Your task to perform on an android device: make emails show in primary in the gmail app Image 0: 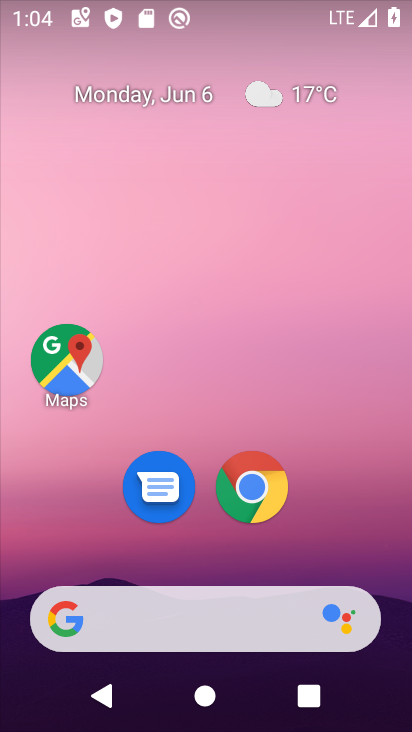
Step 0: drag from (220, 571) to (265, 63)
Your task to perform on an android device: make emails show in primary in the gmail app Image 1: 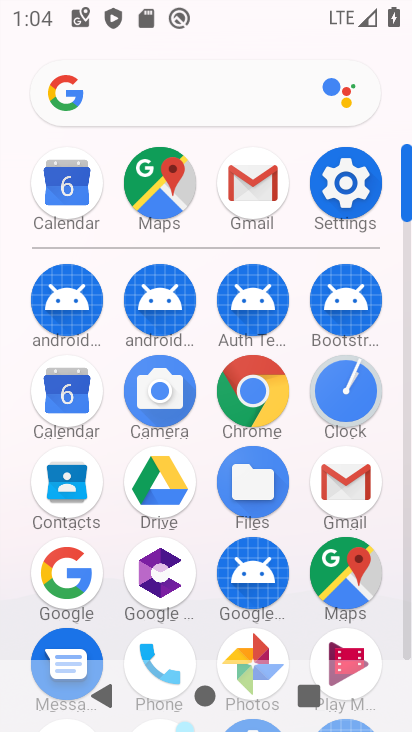
Step 1: click (251, 193)
Your task to perform on an android device: make emails show in primary in the gmail app Image 2: 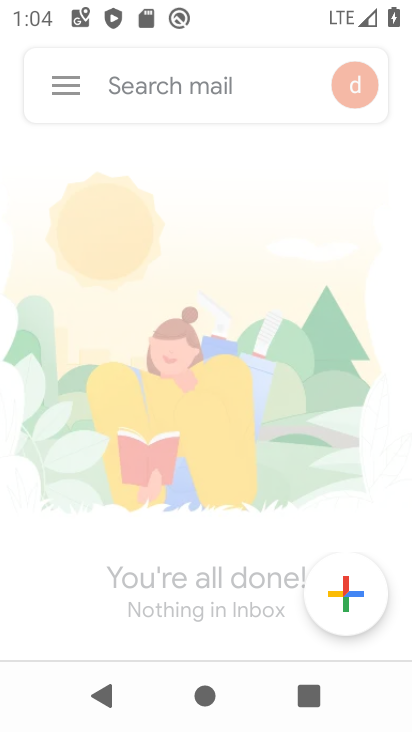
Step 2: click (71, 87)
Your task to perform on an android device: make emails show in primary in the gmail app Image 3: 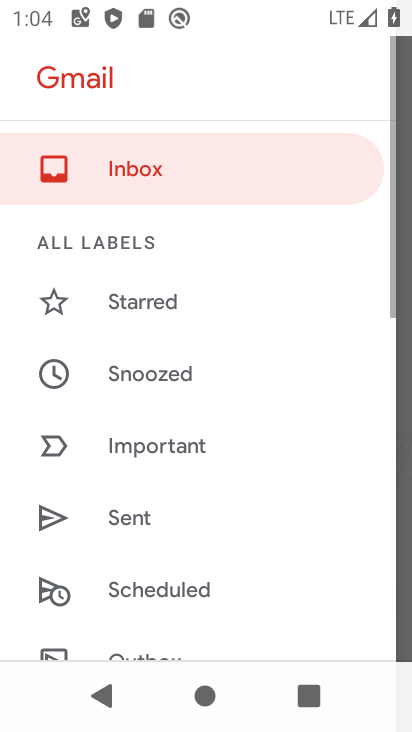
Step 3: drag from (158, 591) to (211, 139)
Your task to perform on an android device: make emails show in primary in the gmail app Image 4: 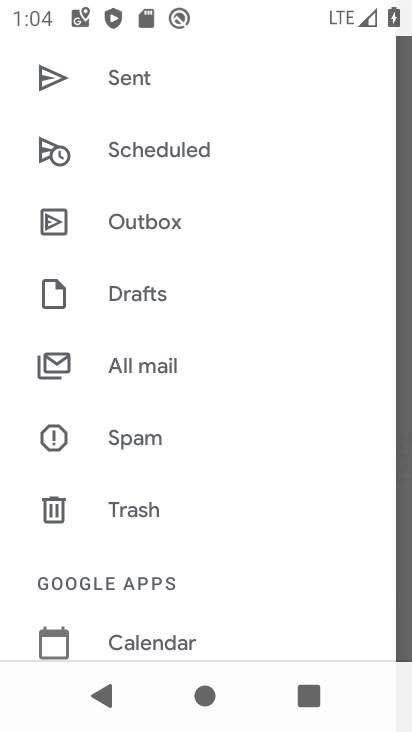
Step 4: drag from (179, 611) to (248, 121)
Your task to perform on an android device: make emails show in primary in the gmail app Image 5: 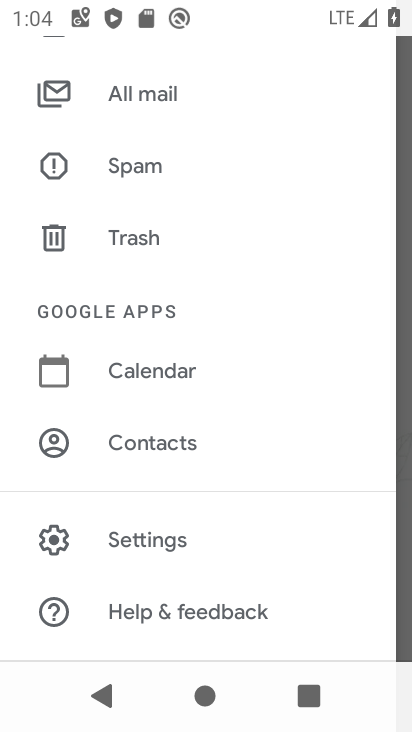
Step 5: click (148, 552)
Your task to perform on an android device: make emails show in primary in the gmail app Image 6: 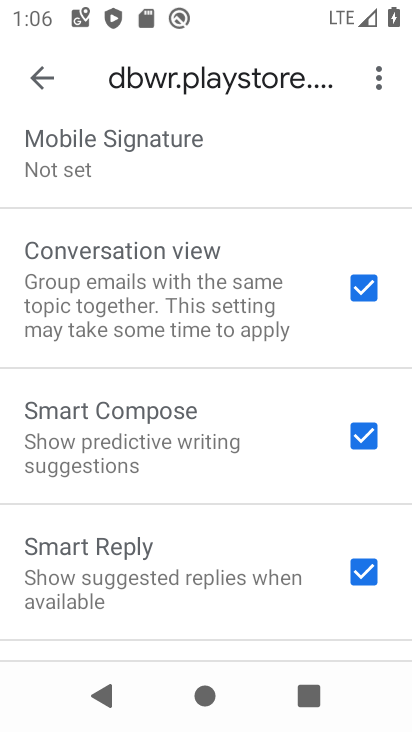
Step 6: drag from (184, 254) to (208, 670)
Your task to perform on an android device: make emails show in primary in the gmail app Image 7: 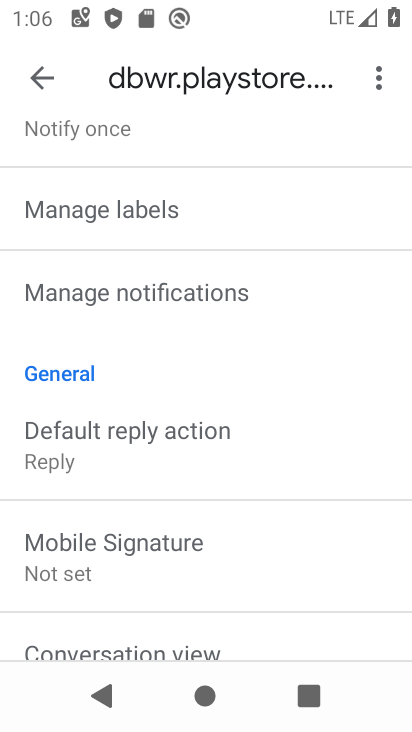
Step 7: drag from (148, 291) to (179, 655)
Your task to perform on an android device: make emails show in primary in the gmail app Image 8: 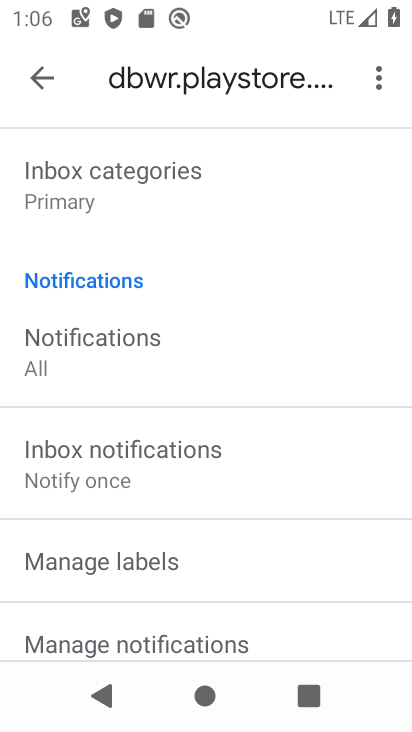
Step 8: drag from (180, 272) to (180, 535)
Your task to perform on an android device: make emails show in primary in the gmail app Image 9: 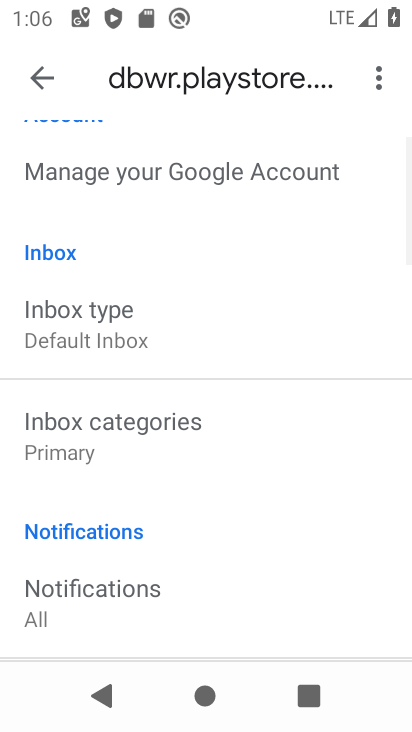
Step 9: click (123, 467)
Your task to perform on an android device: make emails show in primary in the gmail app Image 10: 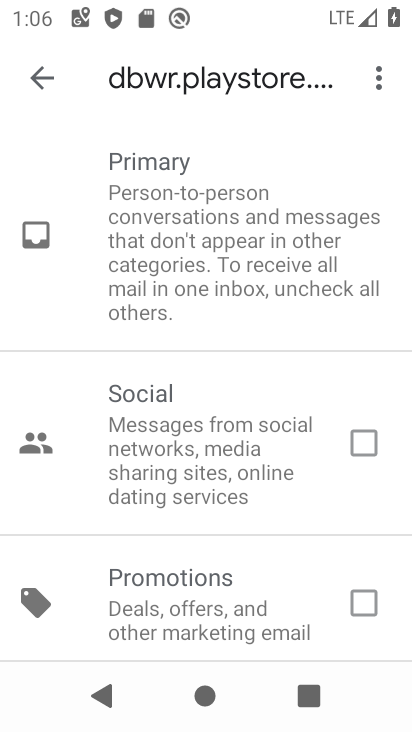
Step 10: drag from (165, 552) to (229, 102)
Your task to perform on an android device: make emails show in primary in the gmail app Image 11: 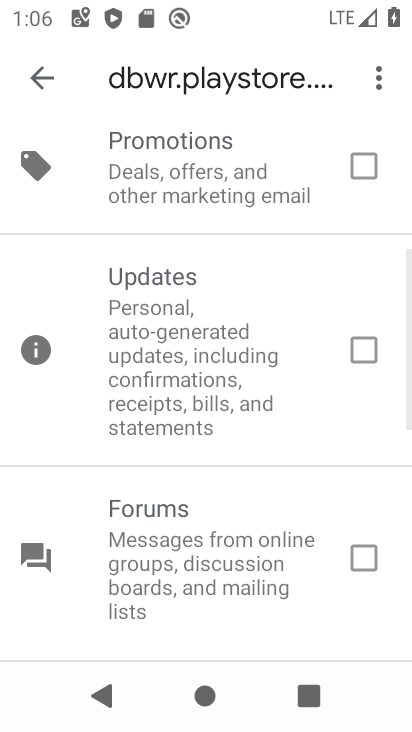
Step 11: drag from (274, 576) to (274, 78)
Your task to perform on an android device: make emails show in primary in the gmail app Image 12: 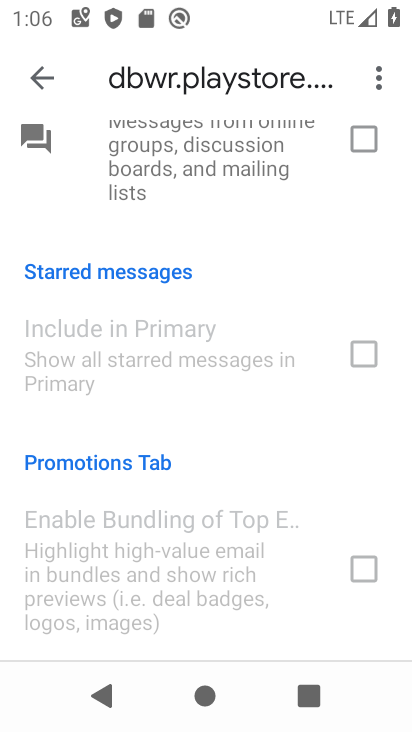
Step 12: drag from (163, 150) to (173, 661)
Your task to perform on an android device: make emails show in primary in the gmail app Image 13: 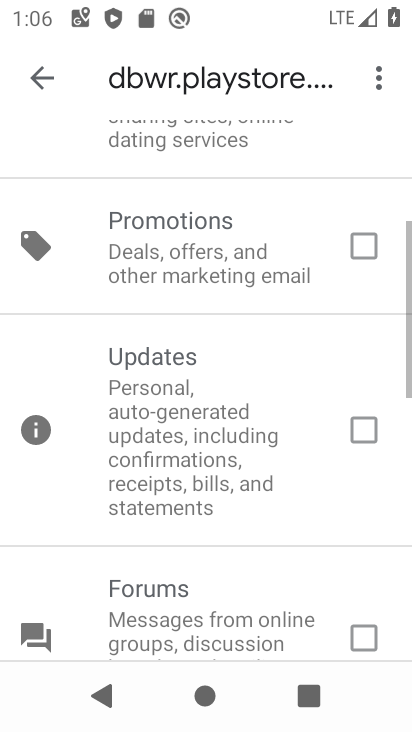
Step 13: drag from (187, 217) to (170, 645)
Your task to perform on an android device: make emails show in primary in the gmail app Image 14: 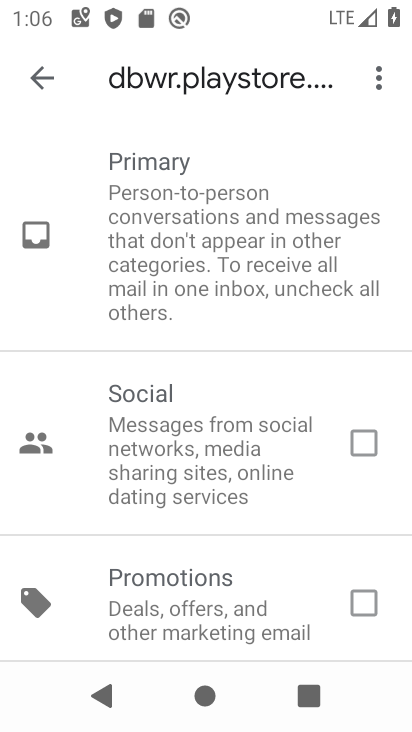
Step 14: click (352, 445)
Your task to perform on an android device: make emails show in primary in the gmail app Image 15: 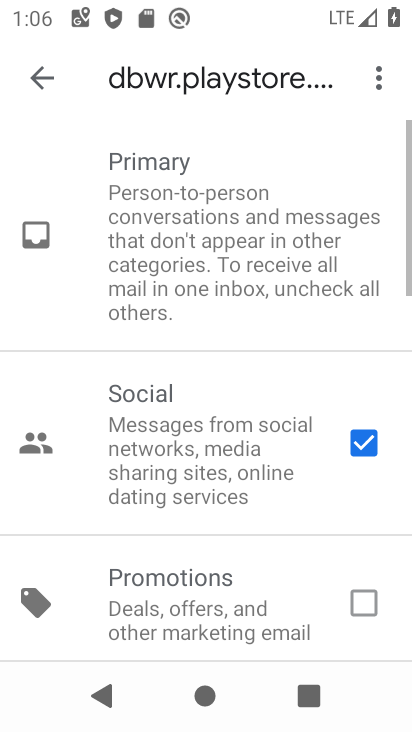
Step 15: drag from (186, 550) to (193, 196)
Your task to perform on an android device: make emails show in primary in the gmail app Image 16: 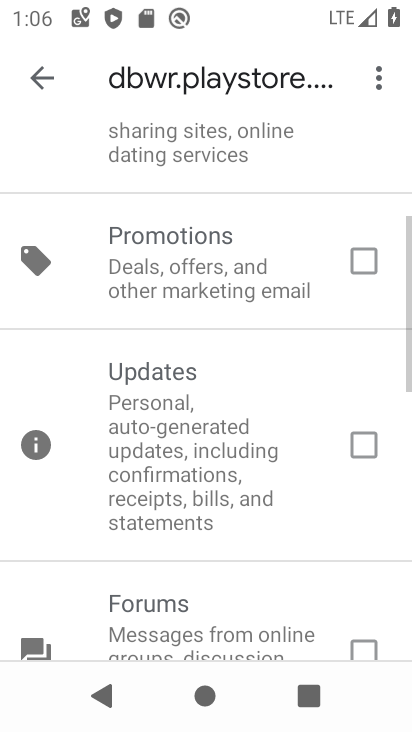
Step 16: click (352, 257)
Your task to perform on an android device: make emails show in primary in the gmail app Image 17: 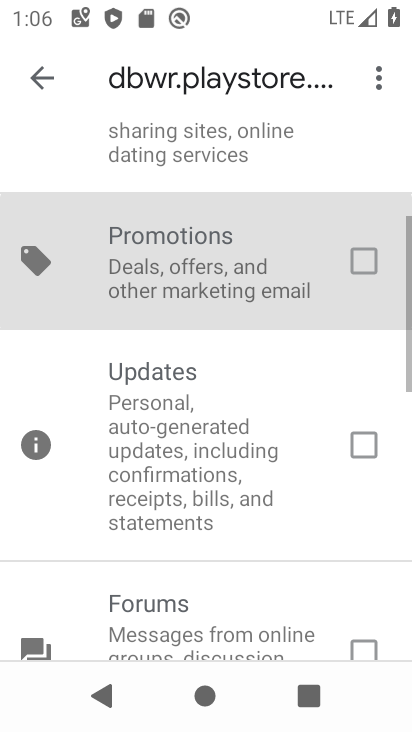
Step 17: click (374, 449)
Your task to perform on an android device: make emails show in primary in the gmail app Image 18: 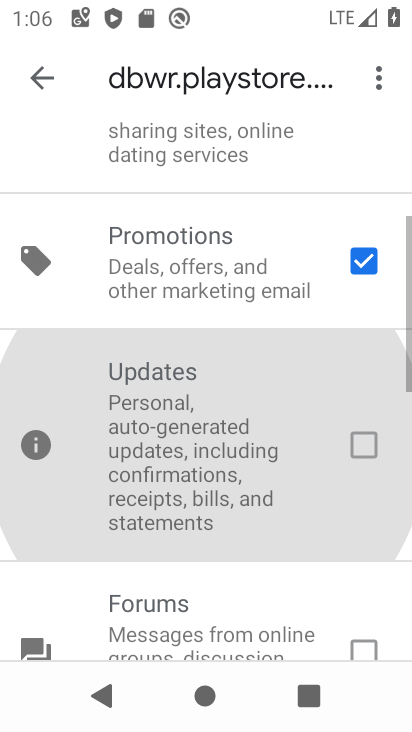
Step 18: drag from (193, 523) to (200, 191)
Your task to perform on an android device: make emails show in primary in the gmail app Image 19: 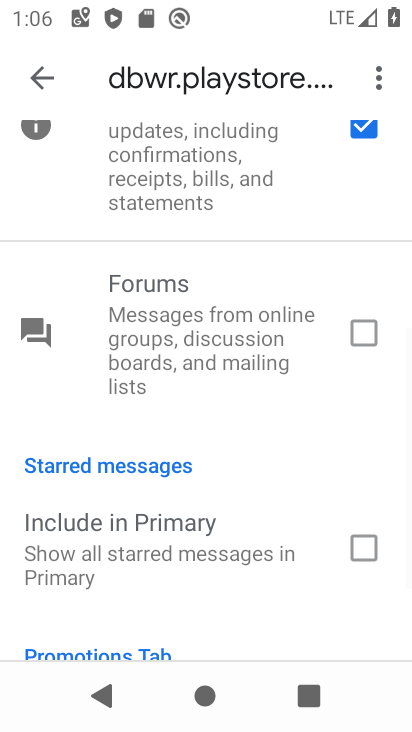
Step 19: click (360, 341)
Your task to perform on an android device: make emails show in primary in the gmail app Image 20: 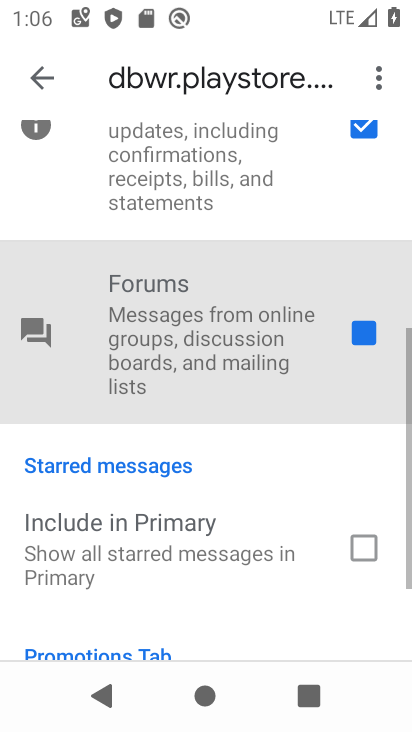
Step 20: click (373, 554)
Your task to perform on an android device: make emails show in primary in the gmail app Image 21: 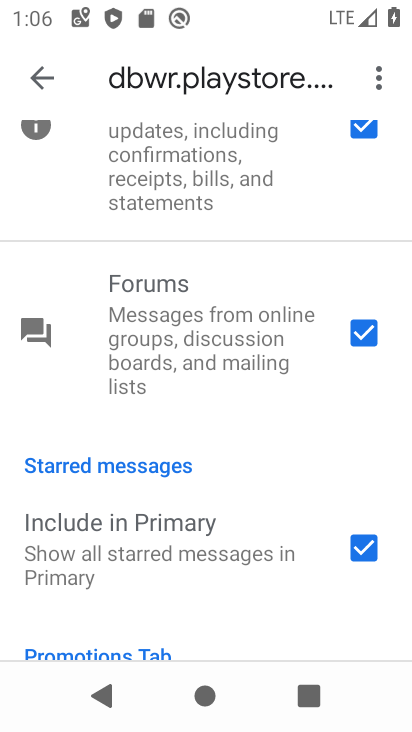
Step 21: task complete